Your task to perform on an android device: Open Google Chrome and open the bookmarks view Image 0: 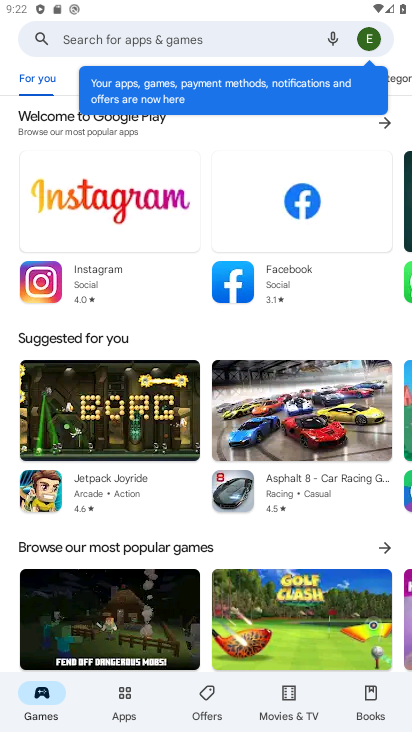
Step 0: press home button
Your task to perform on an android device: Open Google Chrome and open the bookmarks view Image 1: 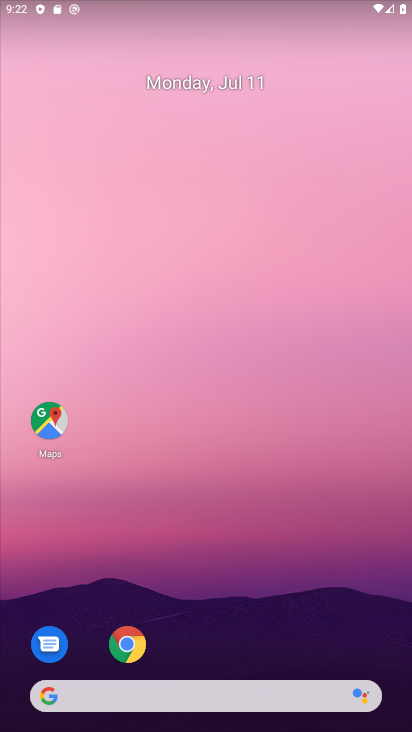
Step 1: click (125, 637)
Your task to perform on an android device: Open Google Chrome and open the bookmarks view Image 2: 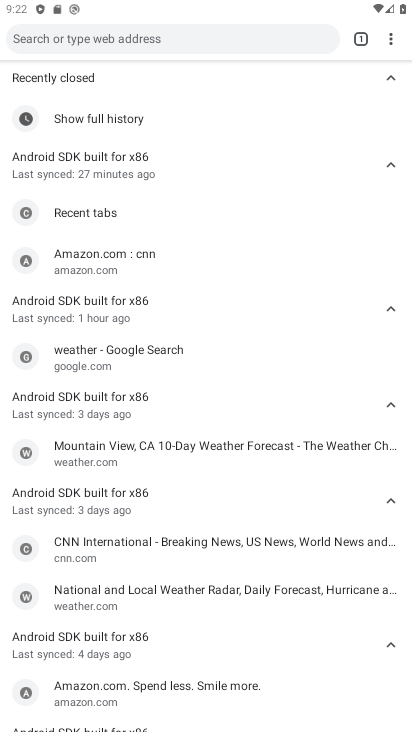
Step 2: click (392, 36)
Your task to perform on an android device: Open Google Chrome and open the bookmarks view Image 3: 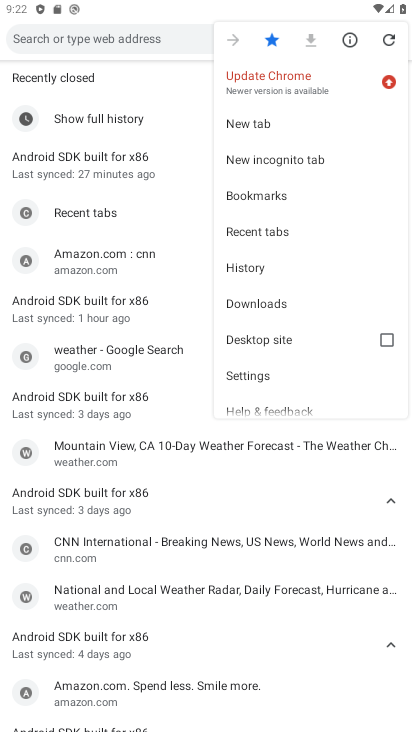
Step 3: click (291, 191)
Your task to perform on an android device: Open Google Chrome and open the bookmarks view Image 4: 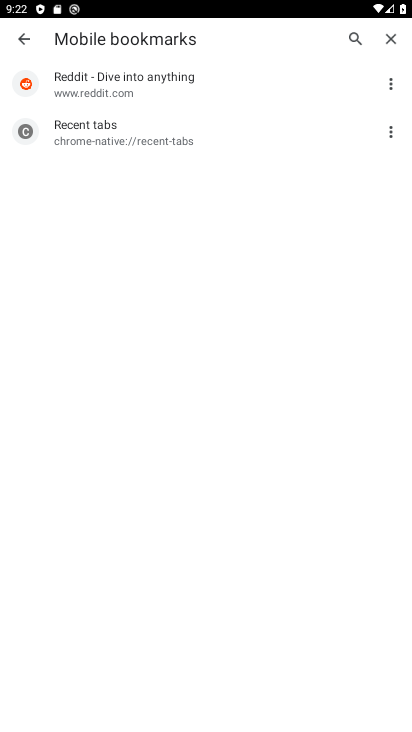
Step 4: task complete